Your task to perform on an android device: turn off translation in the chrome app Image 0: 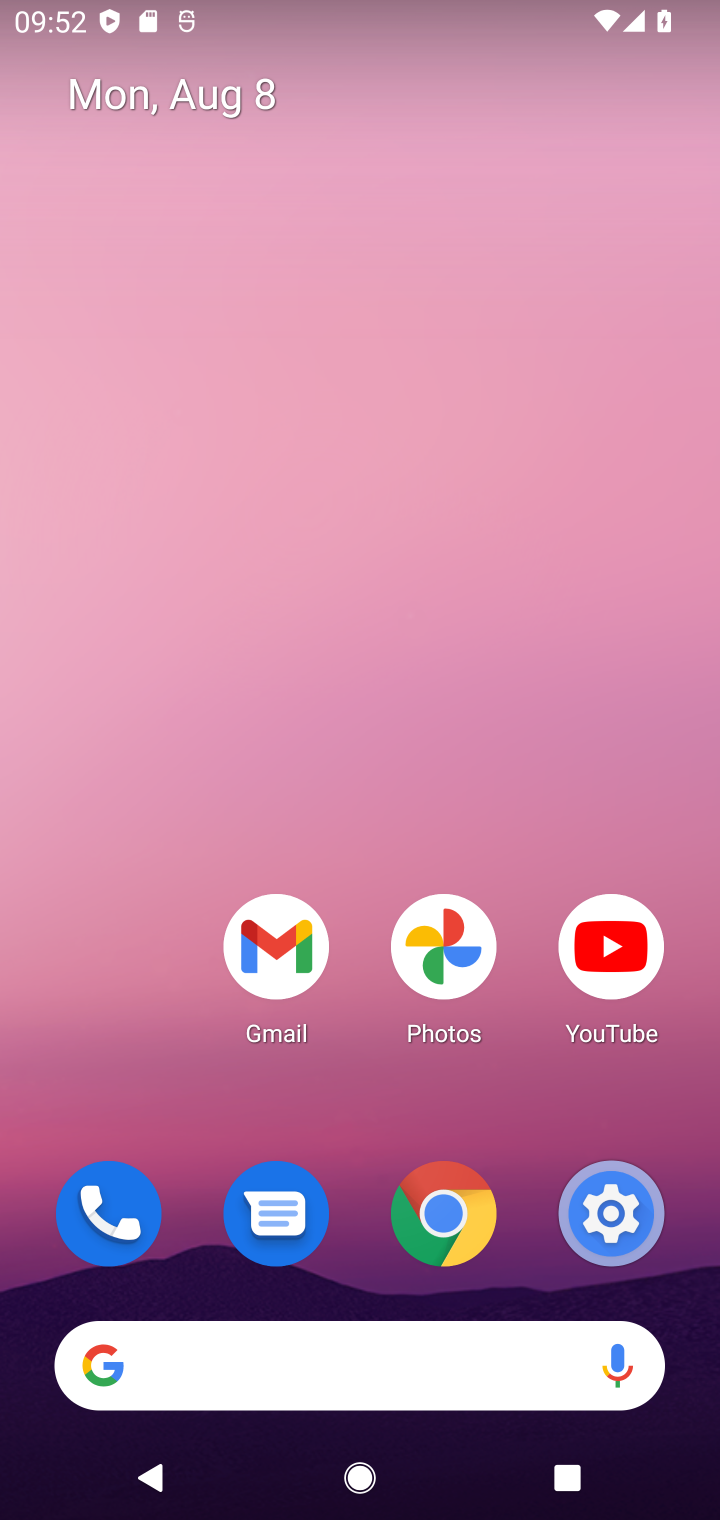
Step 0: drag from (353, 1146) to (356, 260)
Your task to perform on an android device: turn off translation in the chrome app Image 1: 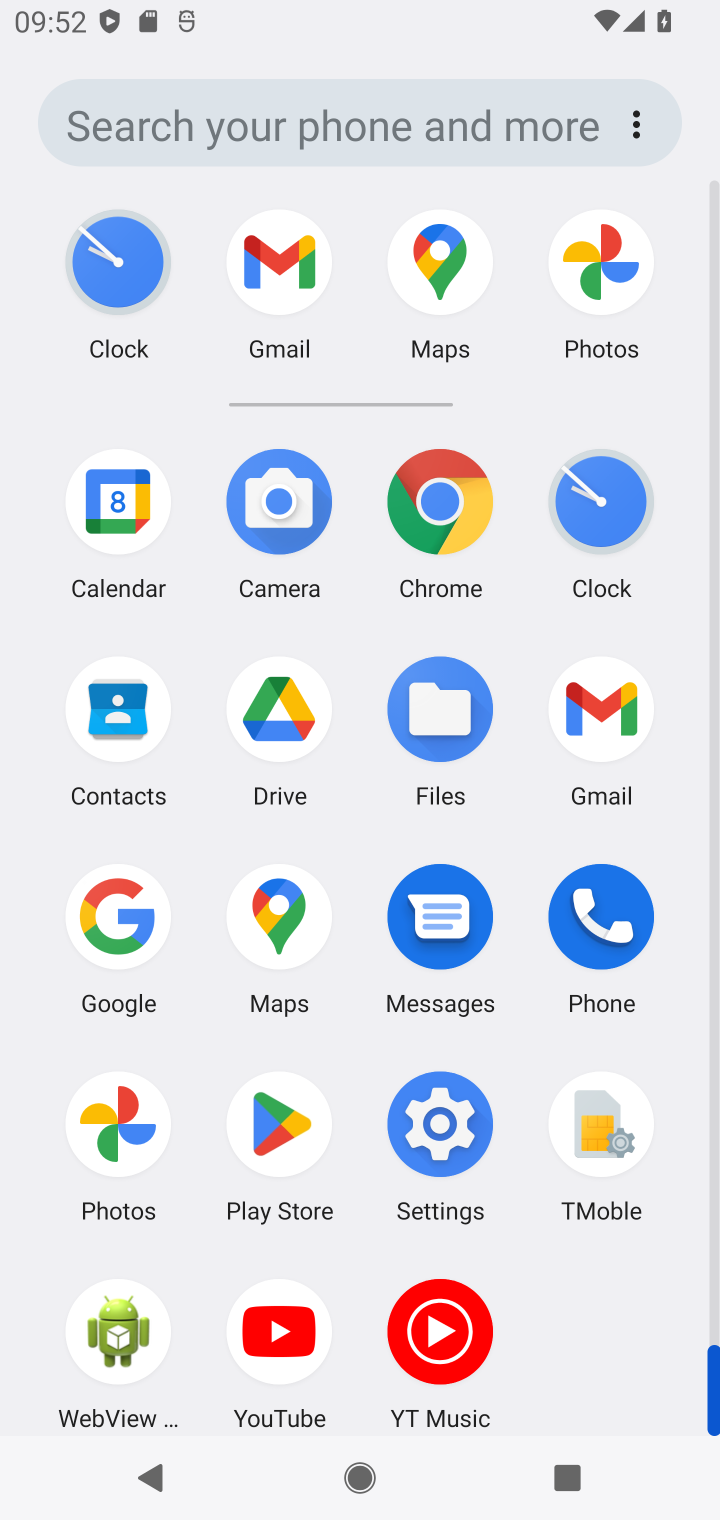
Step 1: click (459, 545)
Your task to perform on an android device: turn off translation in the chrome app Image 2: 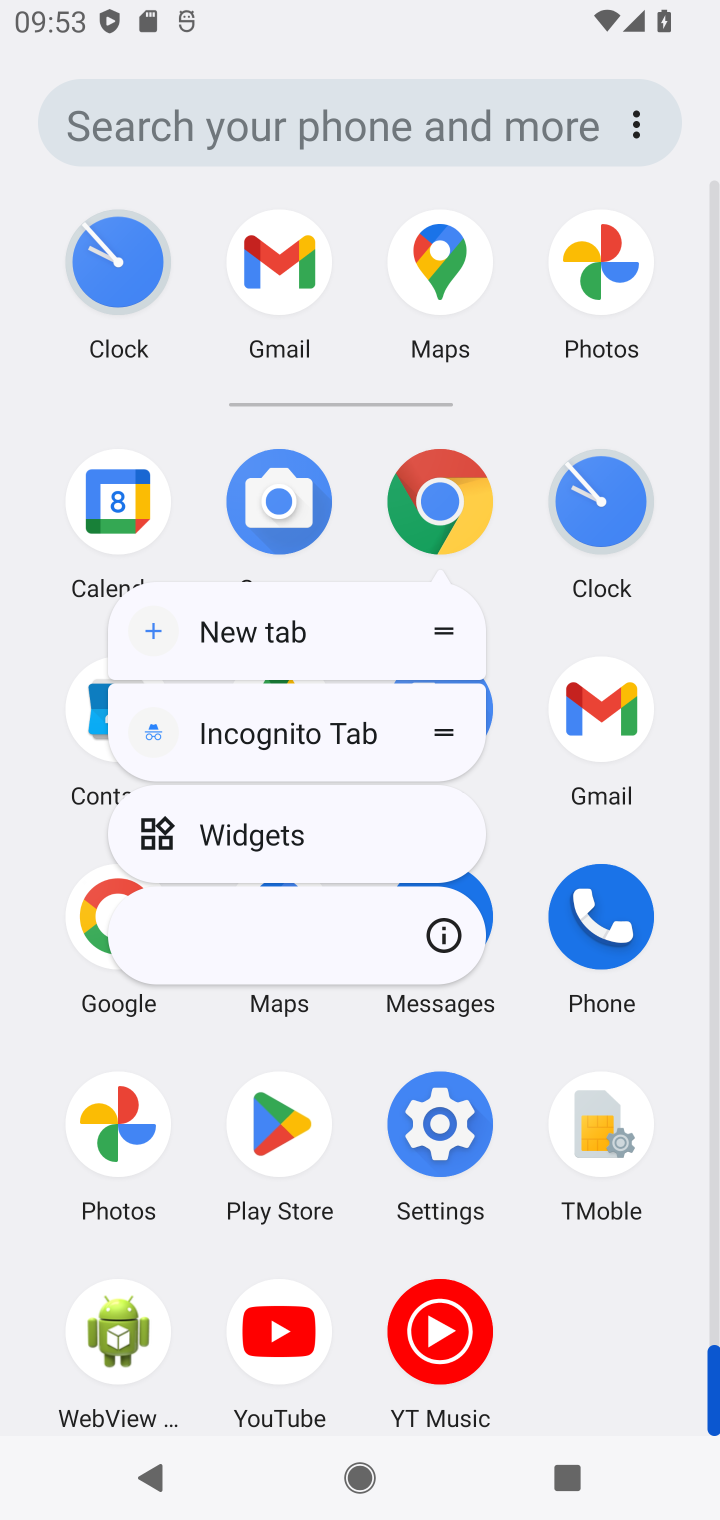
Step 2: click (471, 506)
Your task to perform on an android device: turn off translation in the chrome app Image 3: 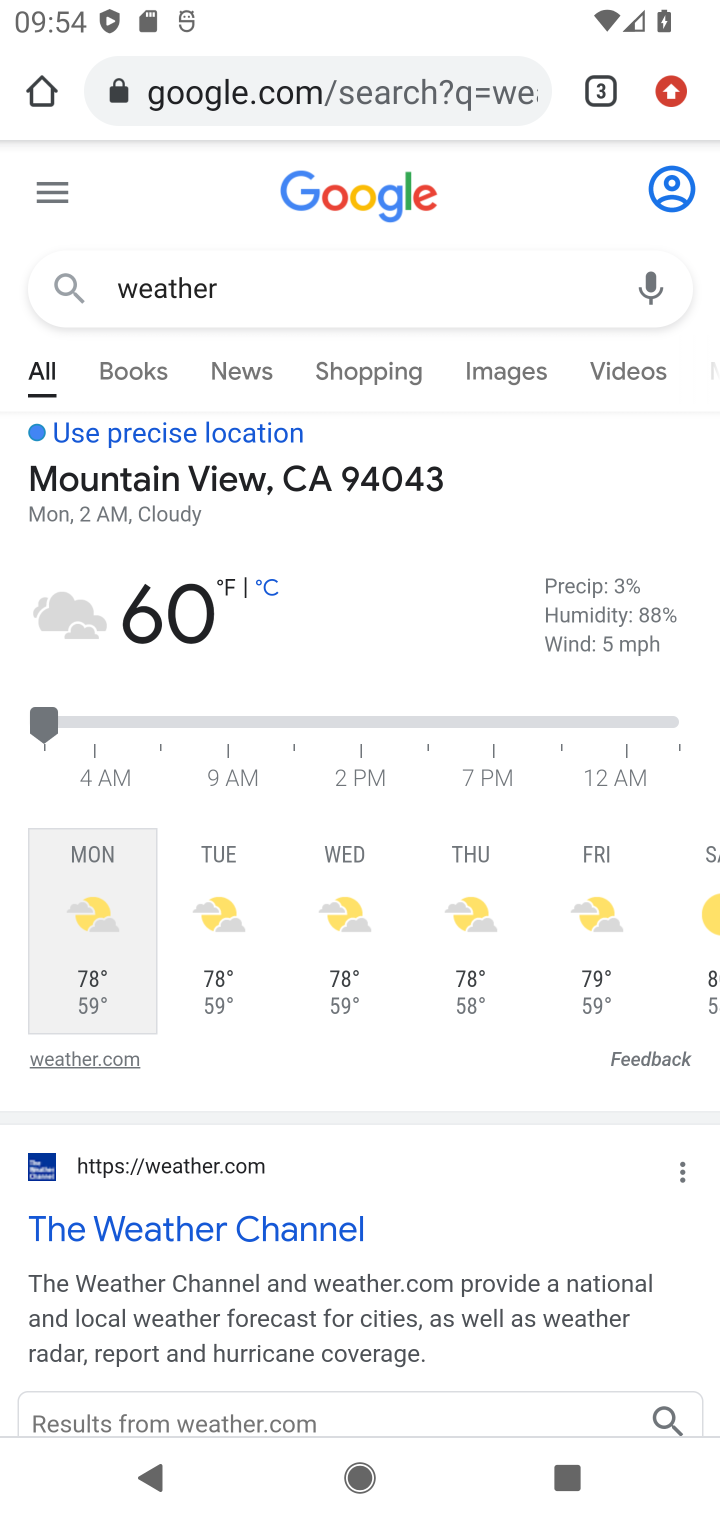
Step 3: click (701, 110)
Your task to perform on an android device: turn off translation in the chrome app Image 4: 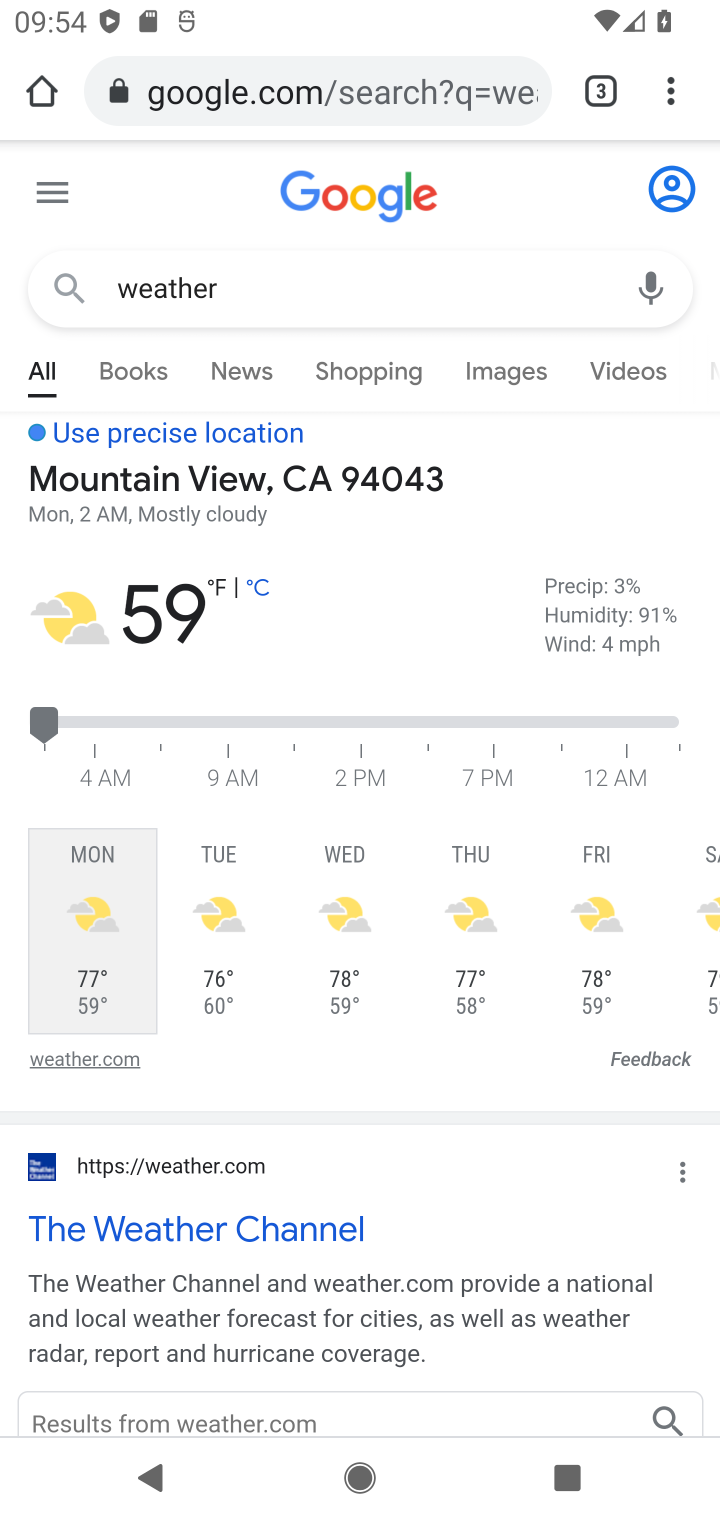
Step 4: click (662, 100)
Your task to perform on an android device: turn off translation in the chrome app Image 5: 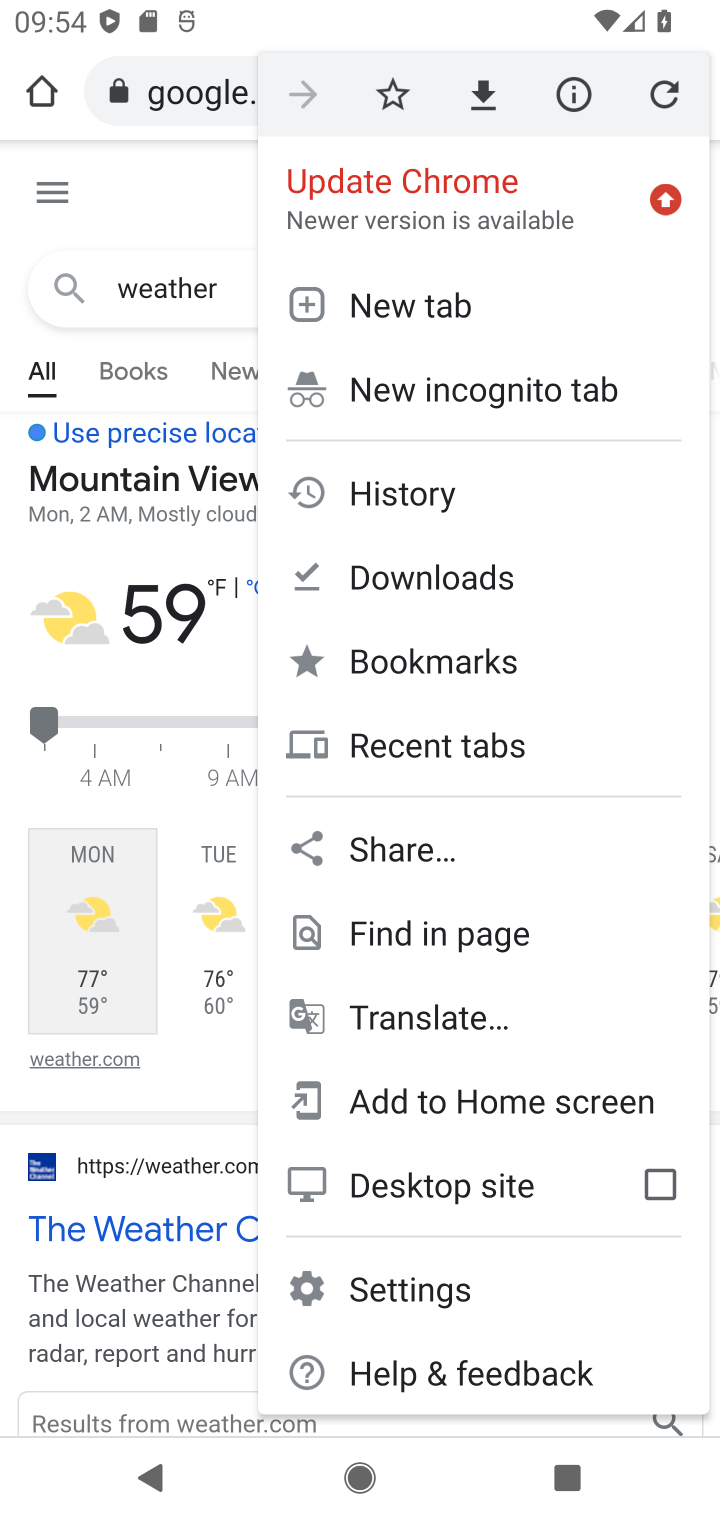
Step 5: click (423, 1276)
Your task to perform on an android device: turn off translation in the chrome app Image 6: 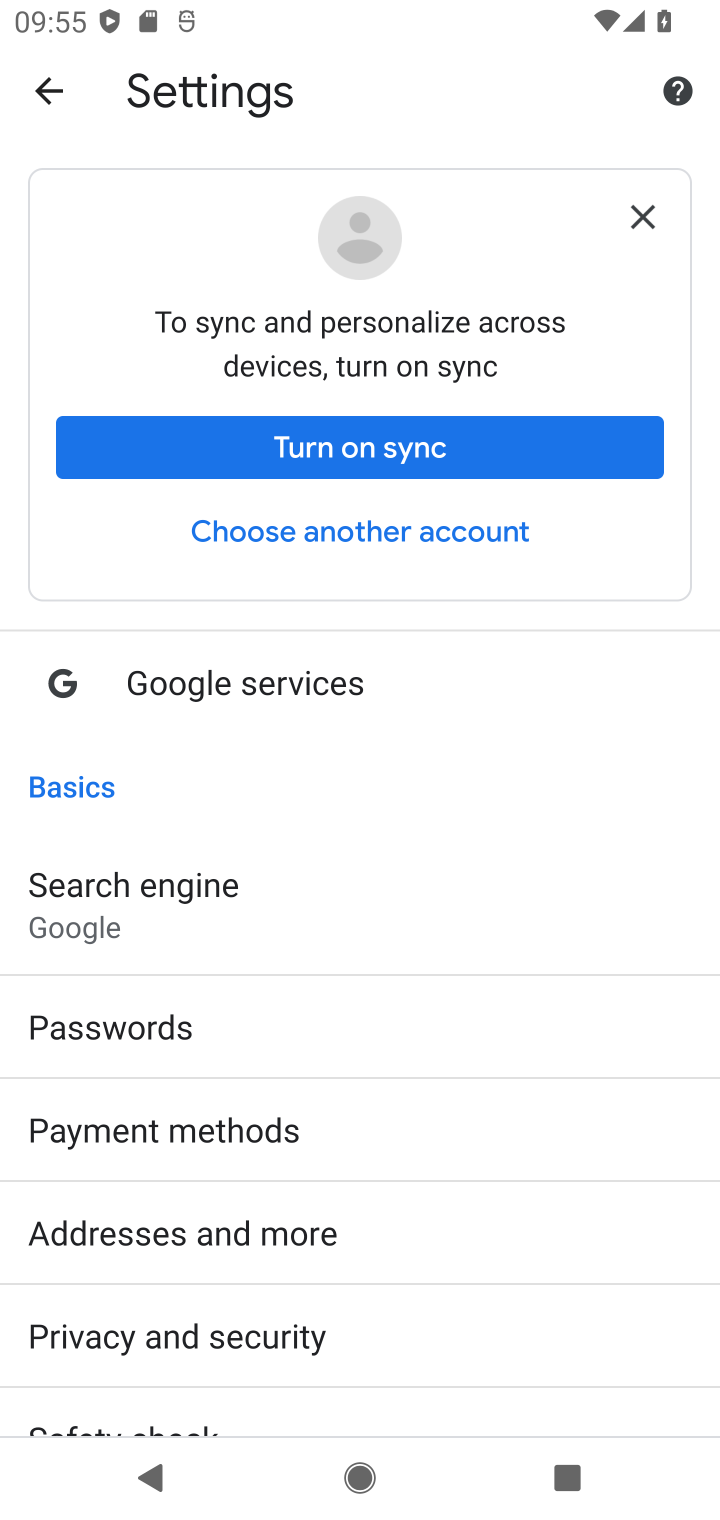
Step 6: drag from (297, 1234) to (380, 482)
Your task to perform on an android device: turn off translation in the chrome app Image 7: 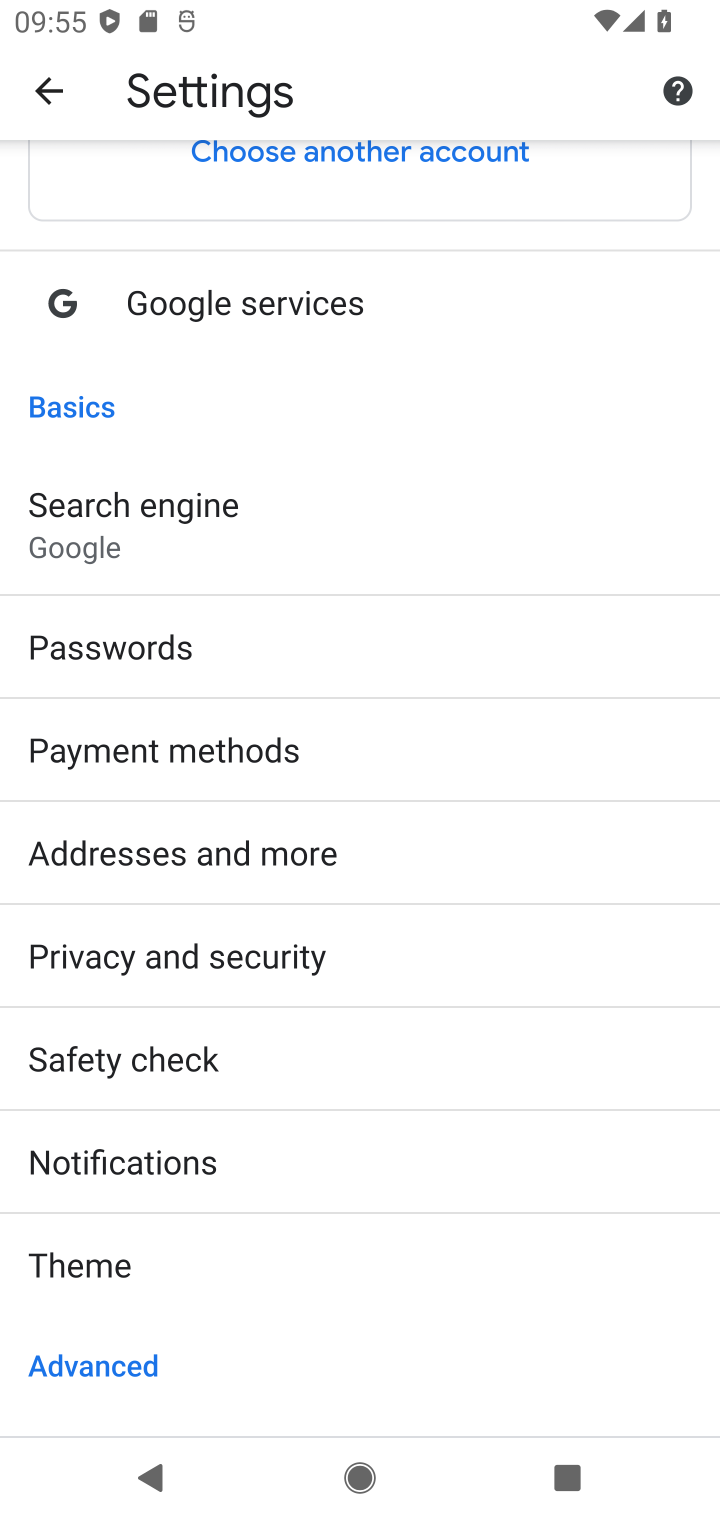
Step 7: drag from (233, 1106) to (303, 445)
Your task to perform on an android device: turn off translation in the chrome app Image 8: 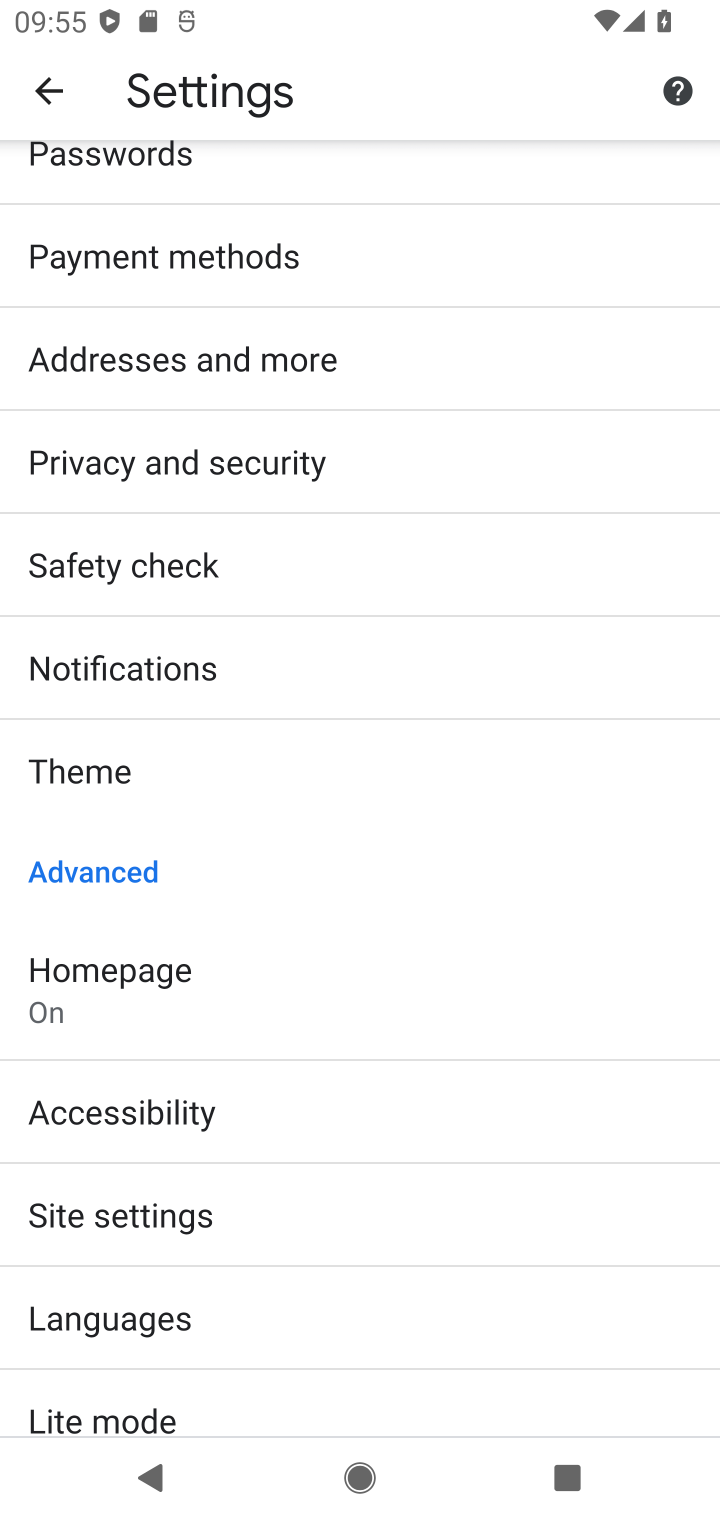
Step 8: click (188, 1310)
Your task to perform on an android device: turn off translation in the chrome app Image 9: 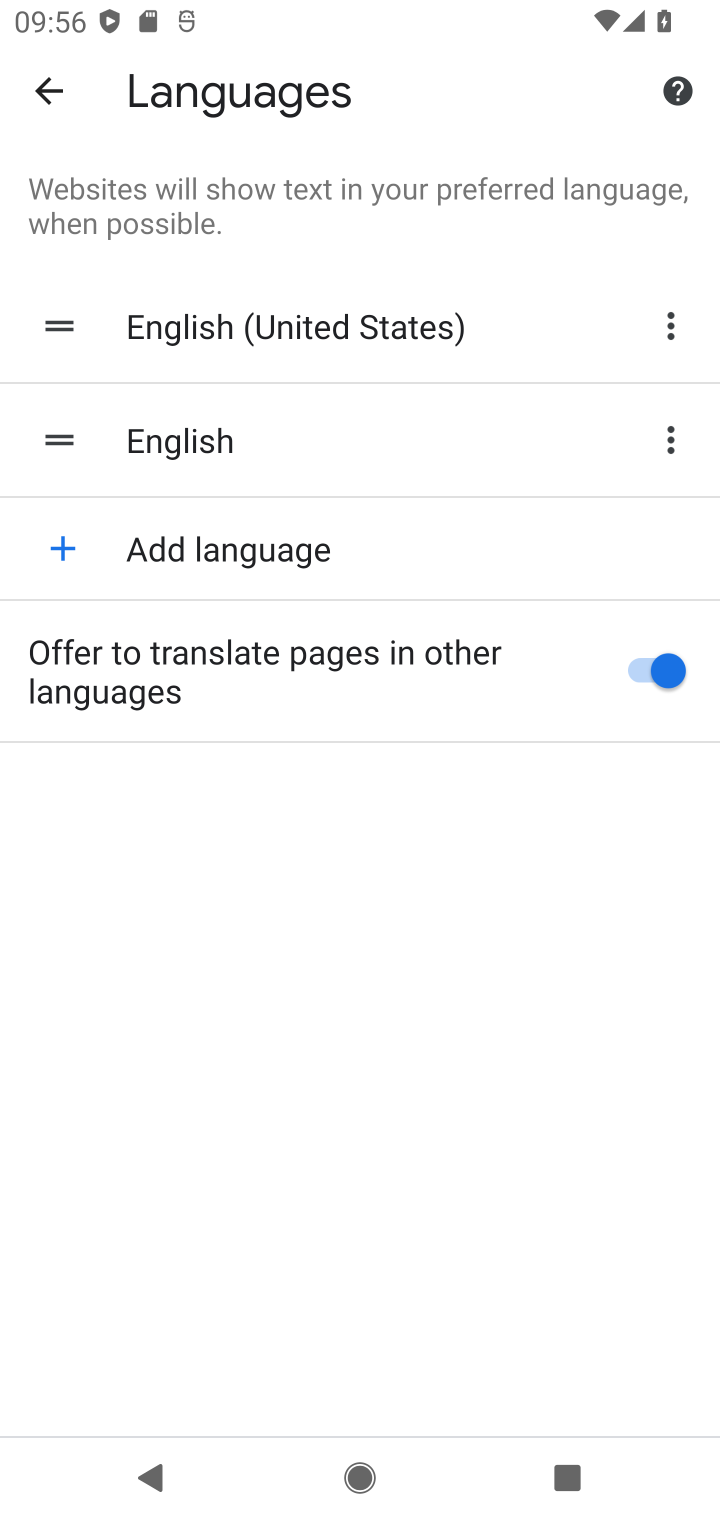
Step 9: click (689, 670)
Your task to perform on an android device: turn off translation in the chrome app Image 10: 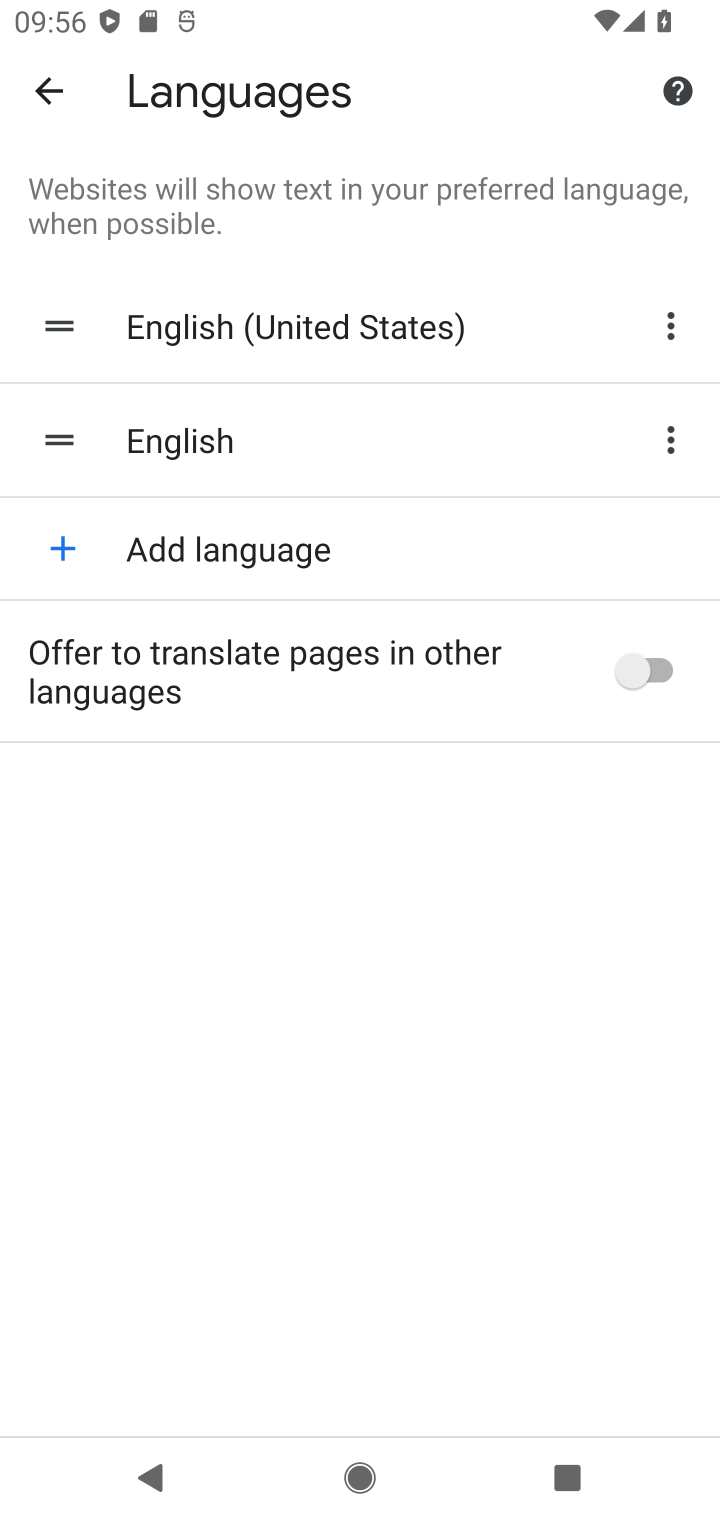
Step 10: task complete